Your task to perform on an android device: add a label to a message in the gmail app Image 0: 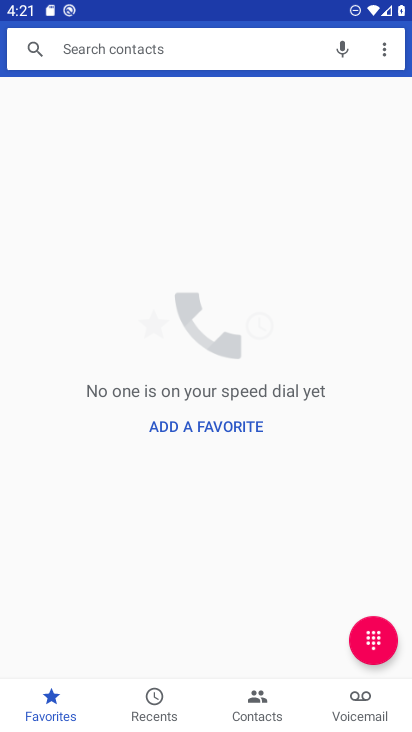
Step 0: press home button
Your task to perform on an android device: add a label to a message in the gmail app Image 1: 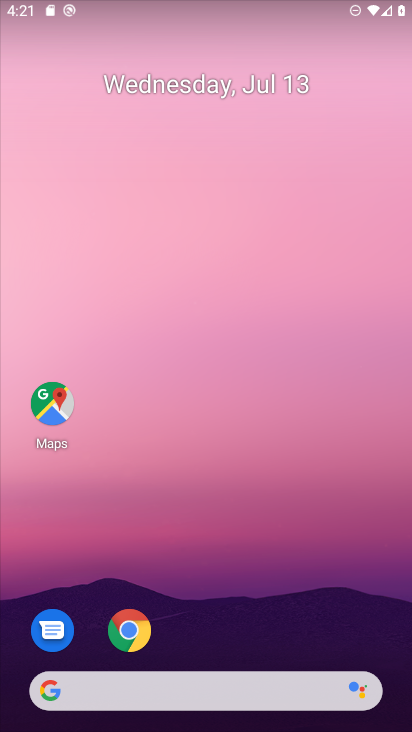
Step 1: drag from (193, 439) to (194, 384)
Your task to perform on an android device: add a label to a message in the gmail app Image 2: 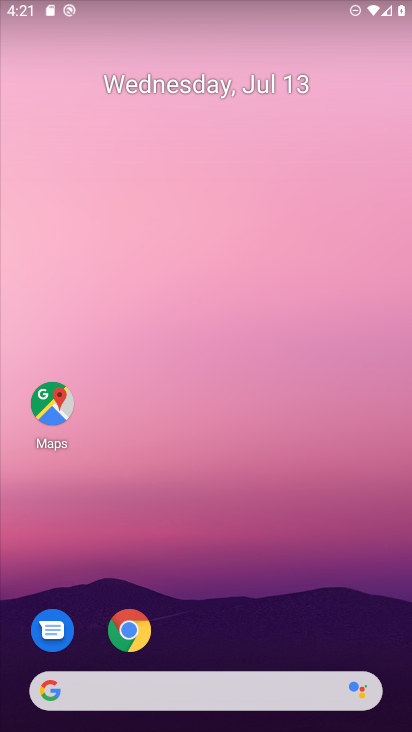
Step 2: drag from (200, 637) to (256, 273)
Your task to perform on an android device: add a label to a message in the gmail app Image 3: 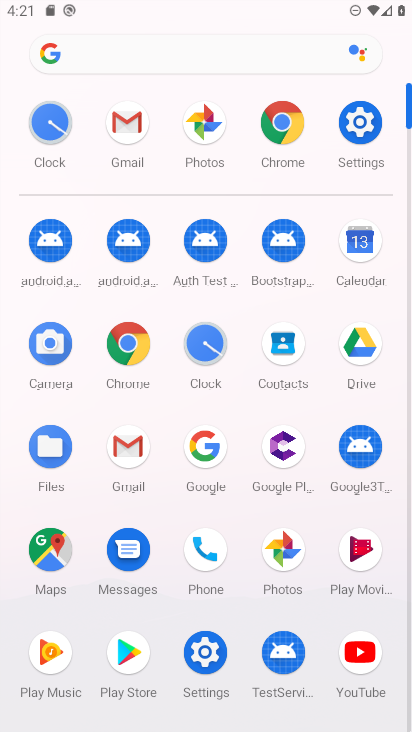
Step 3: click (134, 130)
Your task to perform on an android device: add a label to a message in the gmail app Image 4: 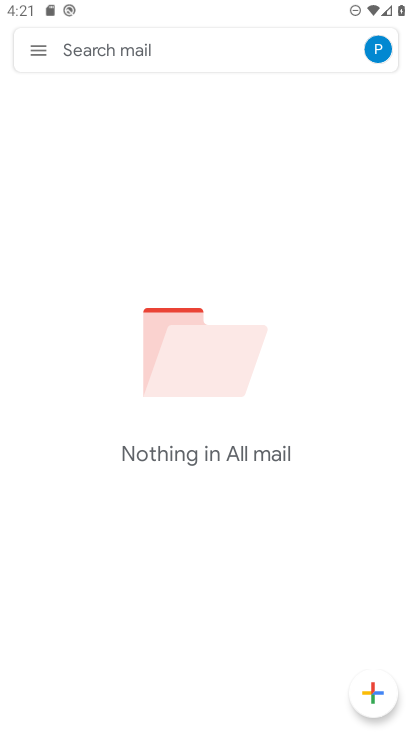
Step 4: task complete